Your task to perform on an android device: Open Chrome and go to settings Image 0: 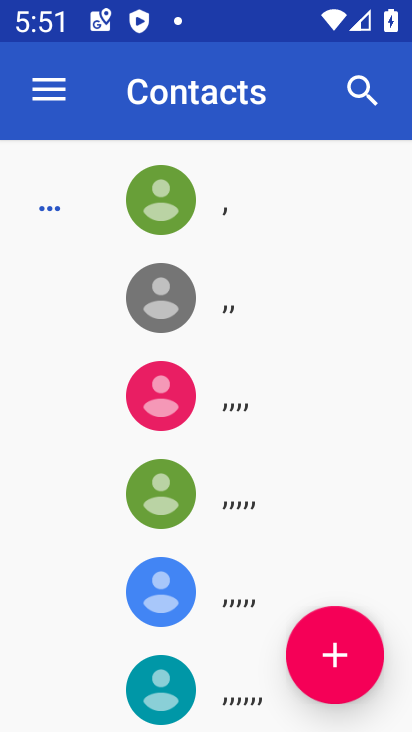
Step 0: press home button
Your task to perform on an android device: Open Chrome and go to settings Image 1: 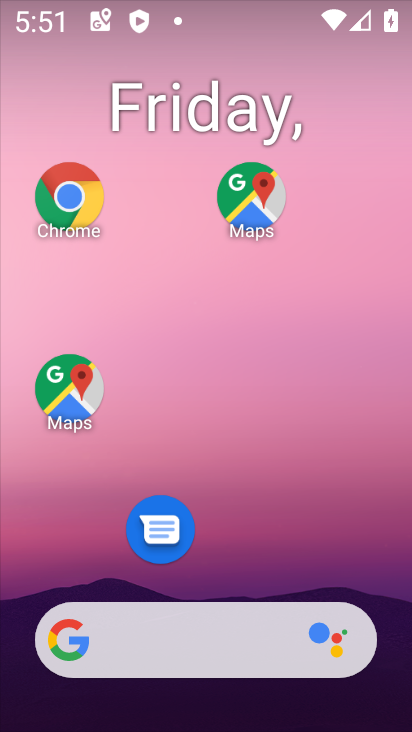
Step 1: click (63, 209)
Your task to perform on an android device: Open Chrome and go to settings Image 2: 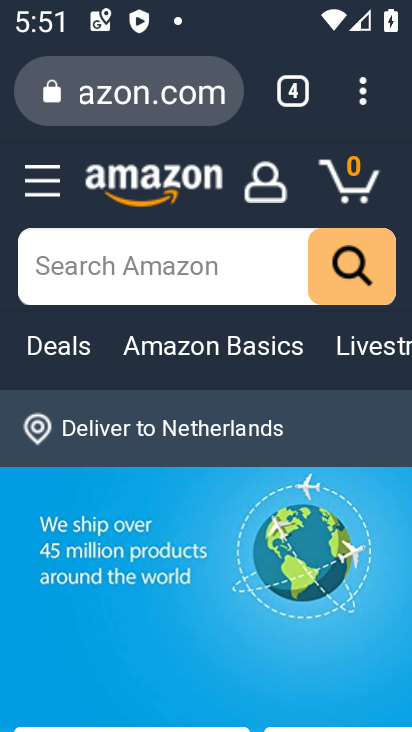
Step 2: click (359, 88)
Your task to perform on an android device: Open Chrome and go to settings Image 3: 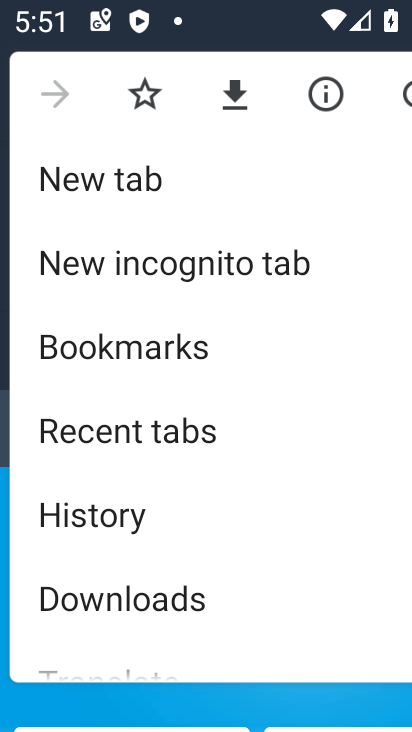
Step 3: drag from (178, 535) to (225, 206)
Your task to perform on an android device: Open Chrome and go to settings Image 4: 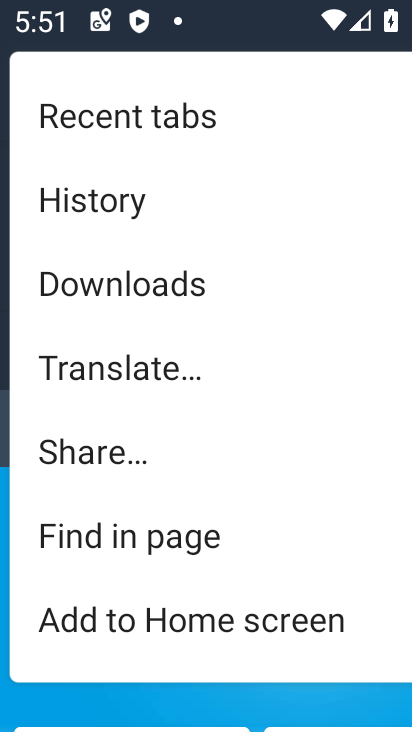
Step 4: drag from (211, 546) to (211, 232)
Your task to perform on an android device: Open Chrome and go to settings Image 5: 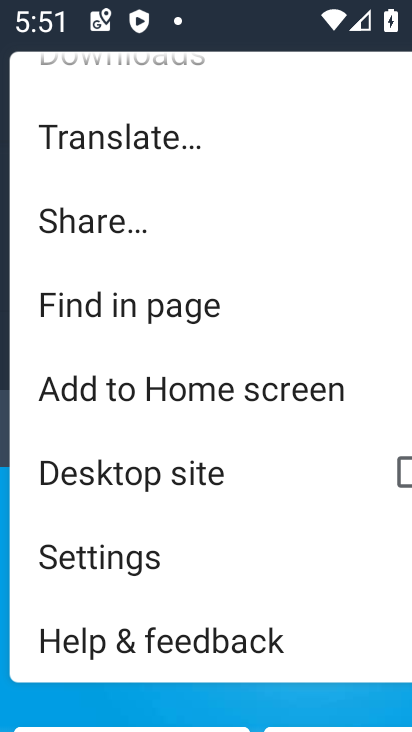
Step 5: drag from (163, 606) to (235, 264)
Your task to perform on an android device: Open Chrome and go to settings Image 6: 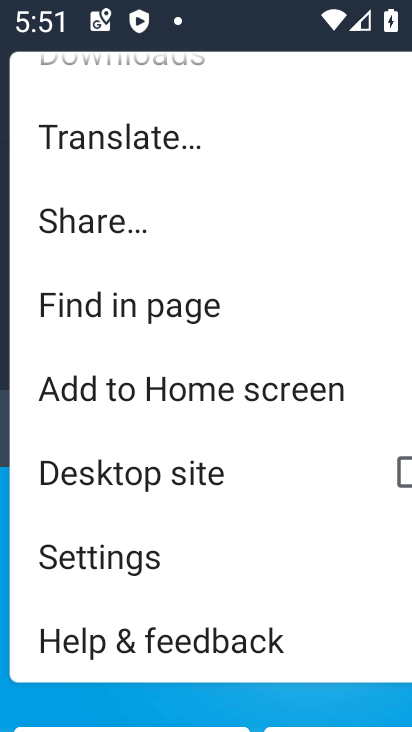
Step 6: click (123, 565)
Your task to perform on an android device: Open Chrome and go to settings Image 7: 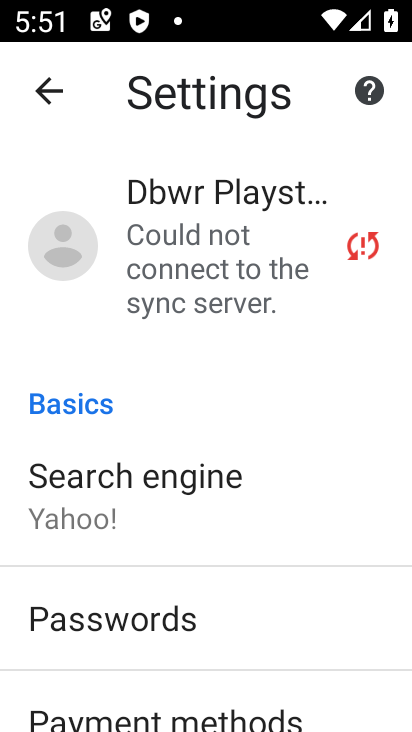
Step 7: task complete